Your task to perform on an android device: open device folders in google photos Image 0: 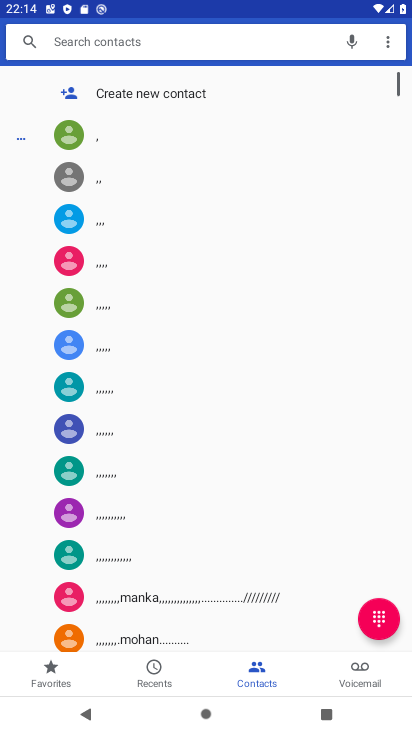
Step 0: press home button
Your task to perform on an android device: open device folders in google photos Image 1: 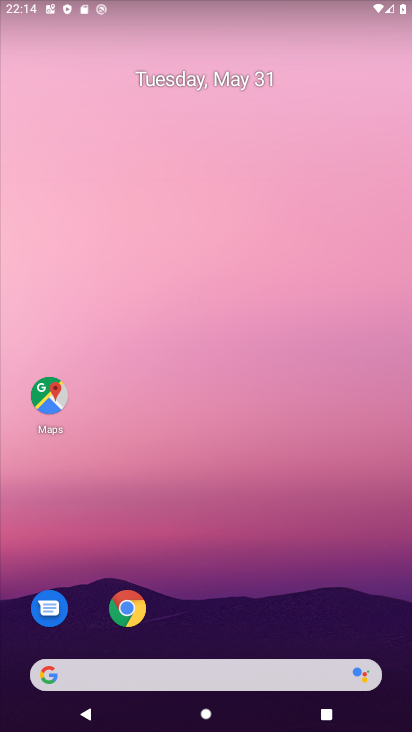
Step 1: drag from (209, 657) to (141, 1)
Your task to perform on an android device: open device folders in google photos Image 2: 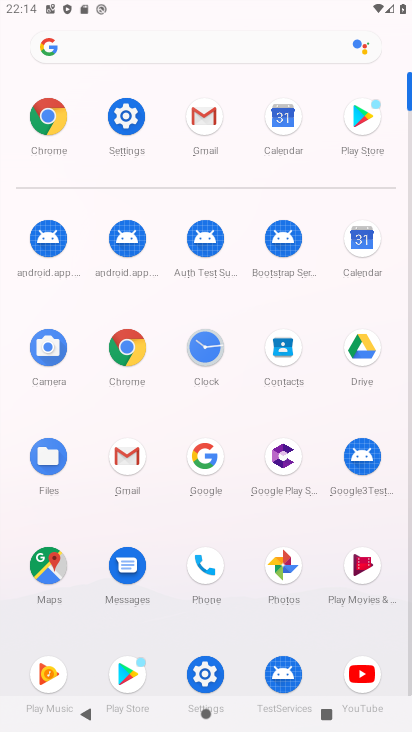
Step 2: click (276, 576)
Your task to perform on an android device: open device folders in google photos Image 3: 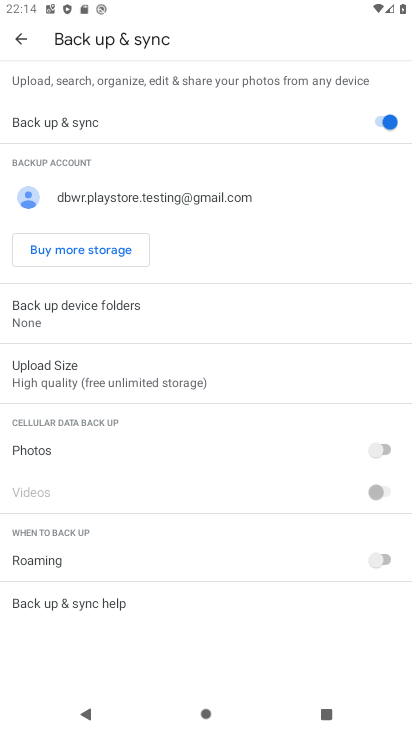
Step 3: click (19, 37)
Your task to perform on an android device: open device folders in google photos Image 4: 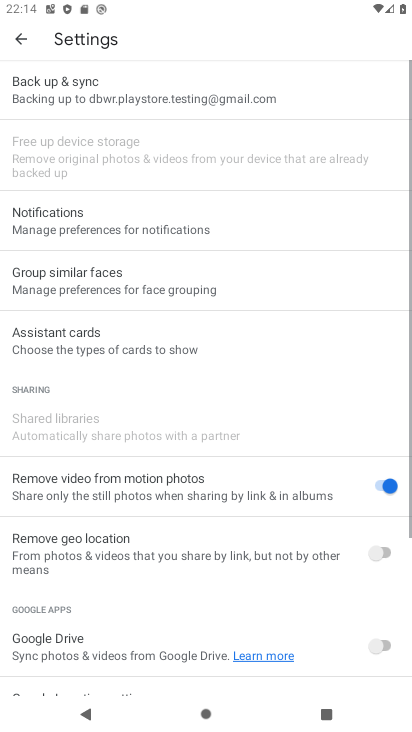
Step 4: click (17, 36)
Your task to perform on an android device: open device folders in google photos Image 5: 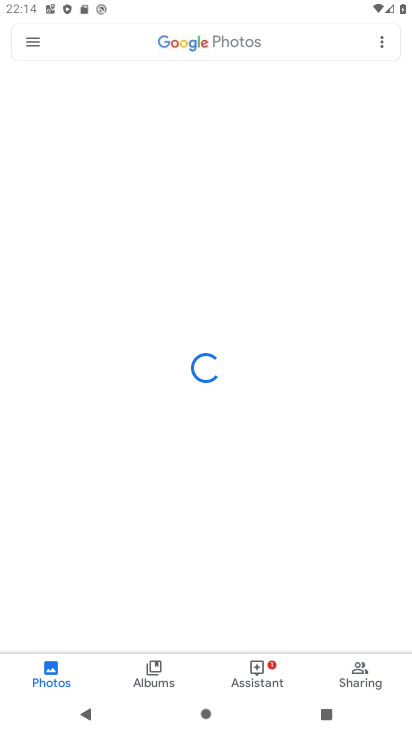
Step 5: click (17, 36)
Your task to perform on an android device: open device folders in google photos Image 6: 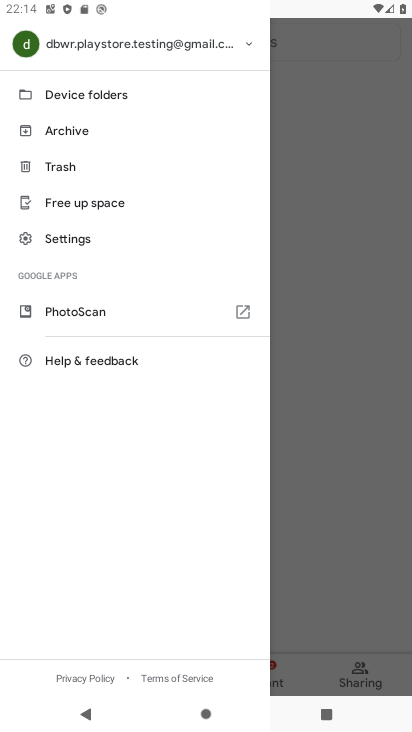
Step 6: click (58, 88)
Your task to perform on an android device: open device folders in google photos Image 7: 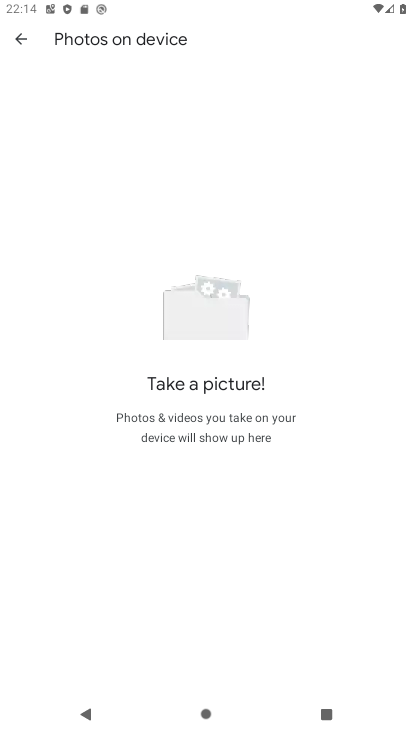
Step 7: task complete